Your task to perform on an android device: search for starred emails in the gmail app Image 0: 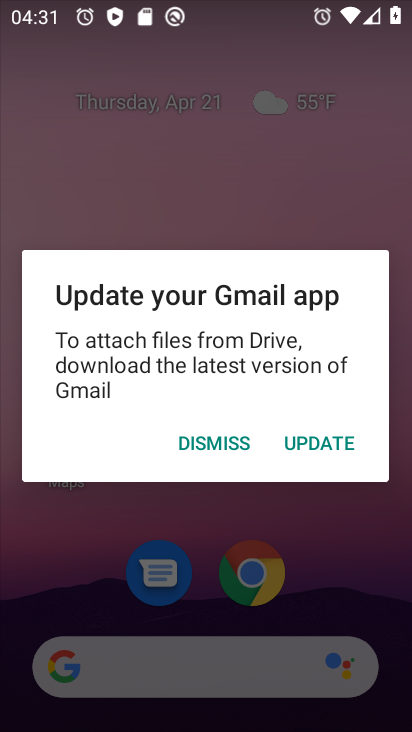
Step 0: press home button
Your task to perform on an android device: search for starred emails in the gmail app Image 1: 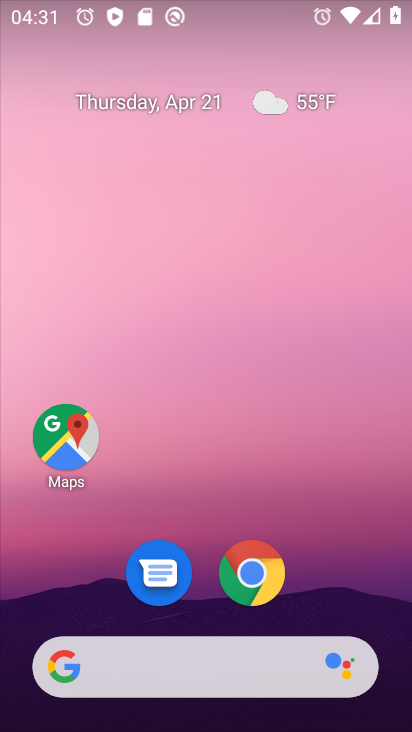
Step 1: drag from (355, 606) to (290, 92)
Your task to perform on an android device: search for starred emails in the gmail app Image 2: 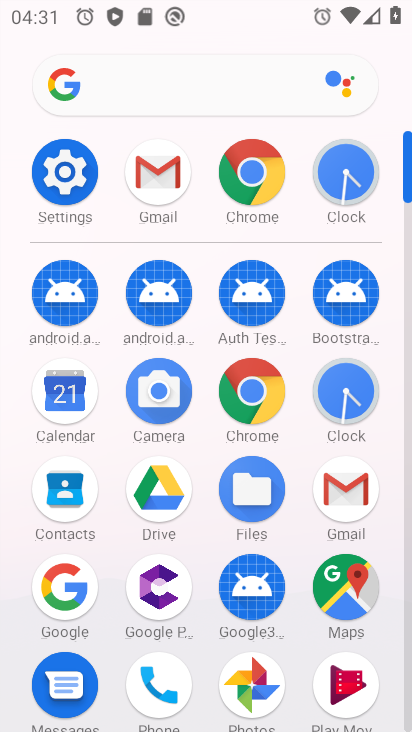
Step 2: click (408, 683)
Your task to perform on an android device: search for starred emails in the gmail app Image 3: 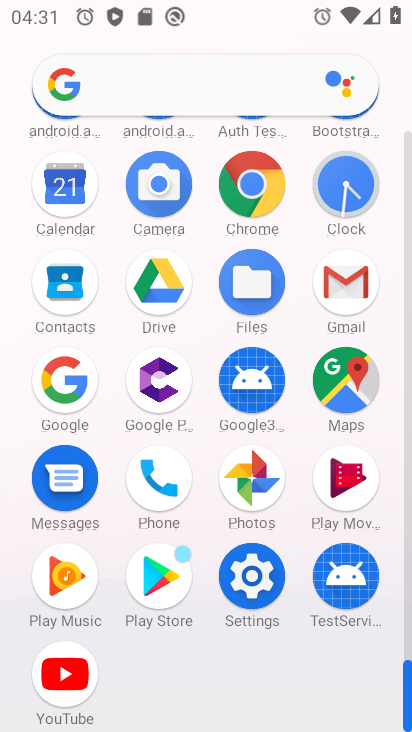
Step 3: click (343, 276)
Your task to perform on an android device: search for starred emails in the gmail app Image 4: 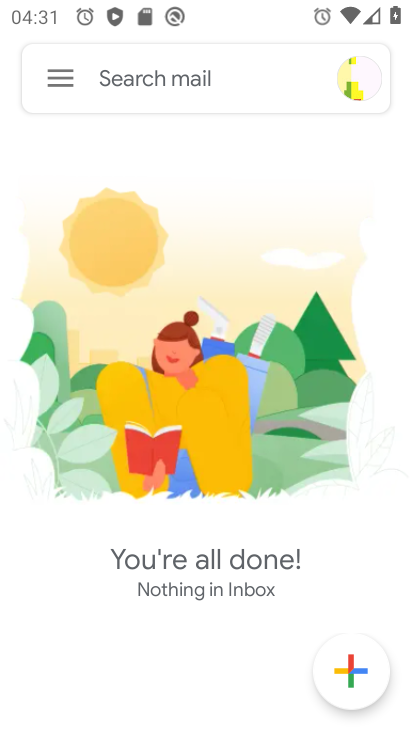
Step 4: click (54, 75)
Your task to perform on an android device: search for starred emails in the gmail app Image 5: 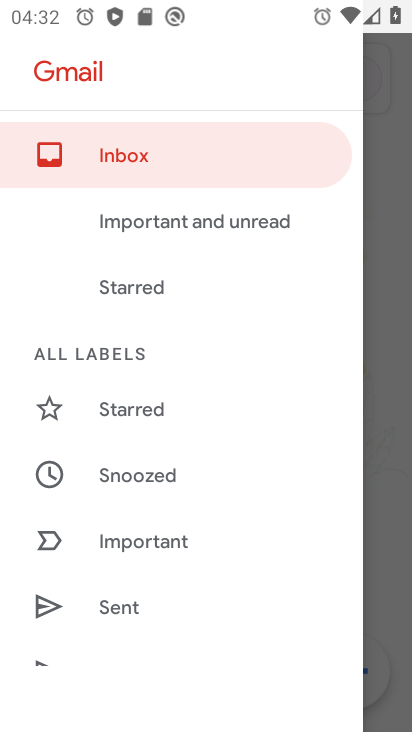
Step 5: click (126, 406)
Your task to perform on an android device: search for starred emails in the gmail app Image 6: 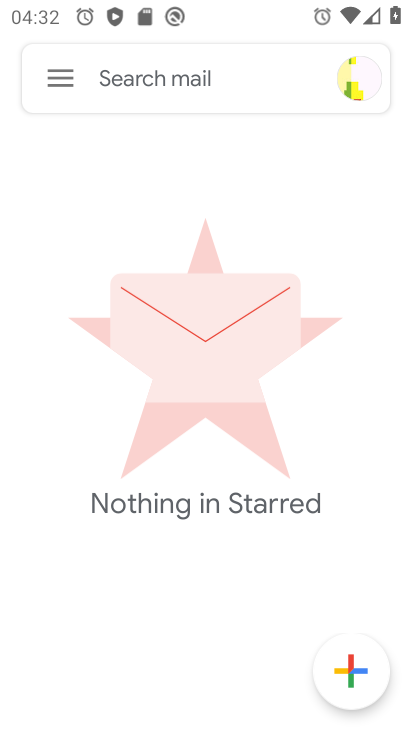
Step 6: task complete